Your task to perform on an android device: Search for "bose soundsport free" on target.com, select the first entry, add it to the cart, then select checkout. Image 0: 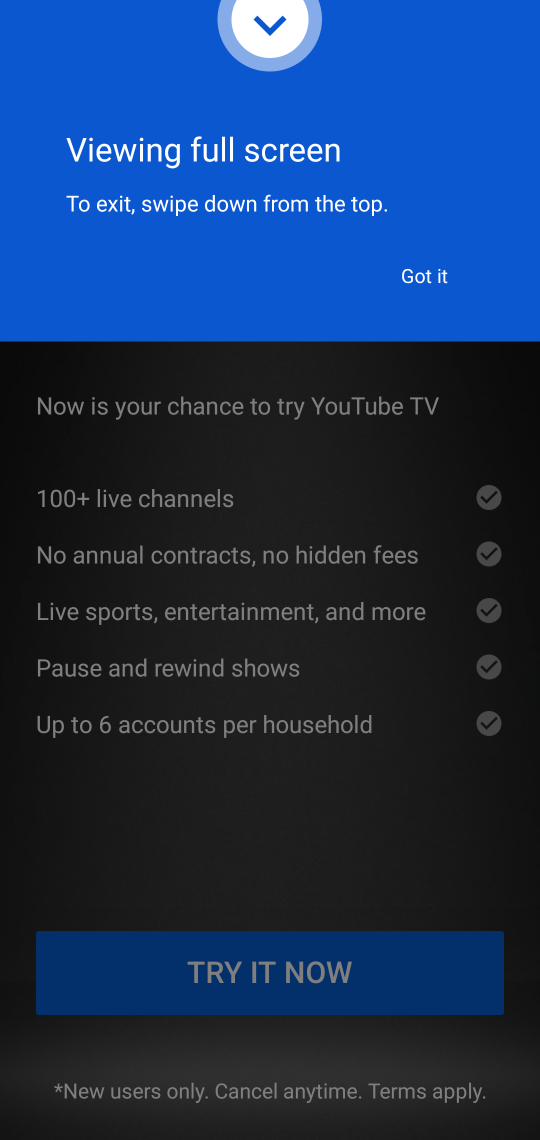
Step 0: press home button
Your task to perform on an android device: Search for "bose soundsport free" on target.com, select the first entry, add it to the cart, then select checkout. Image 1: 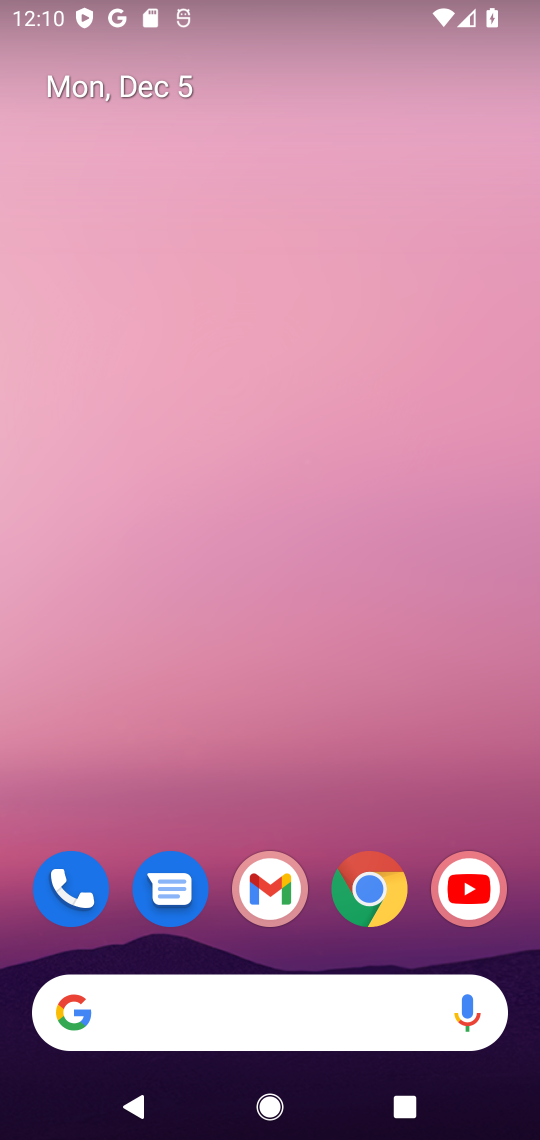
Step 1: click (364, 906)
Your task to perform on an android device: Search for "bose soundsport free" on target.com, select the first entry, add it to the cart, then select checkout. Image 2: 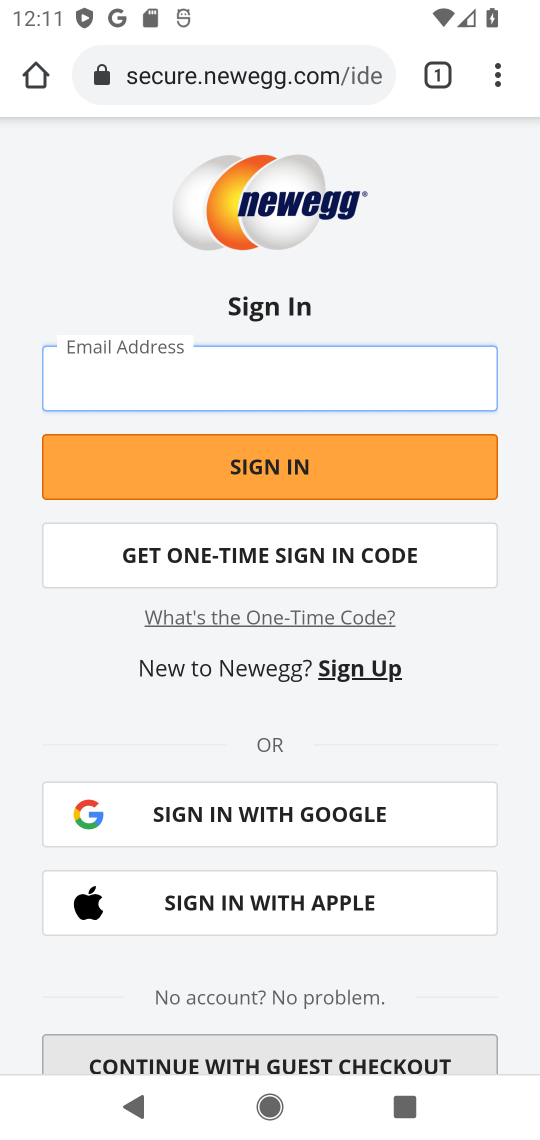
Step 2: click (269, 60)
Your task to perform on an android device: Search for "bose soundsport free" on target.com, select the first entry, add it to the cart, then select checkout. Image 3: 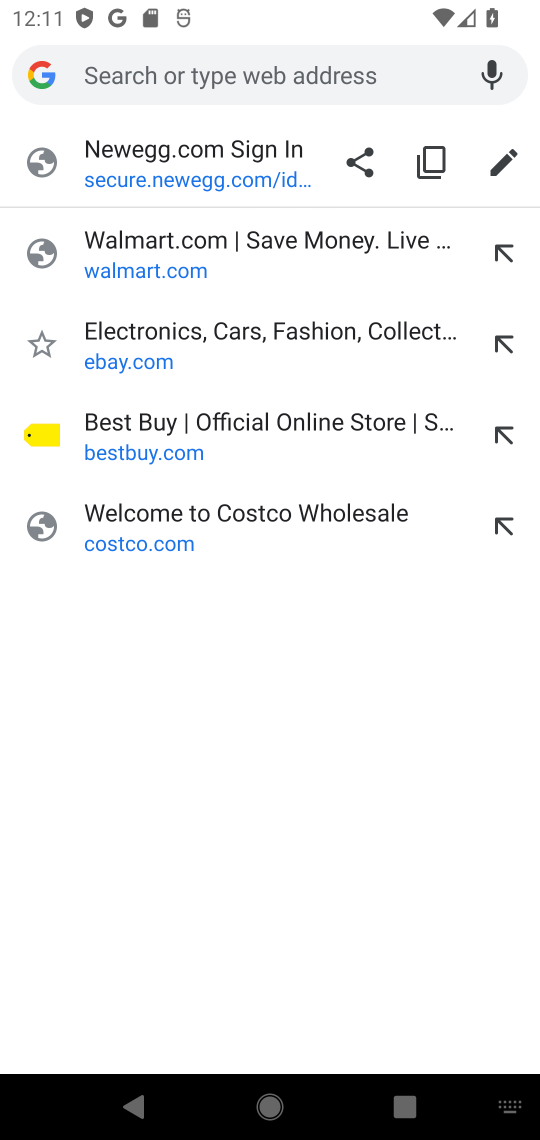
Step 3: type "target.com"
Your task to perform on an android device: Search for "bose soundsport free" on target.com, select the first entry, add it to the cart, then select checkout. Image 4: 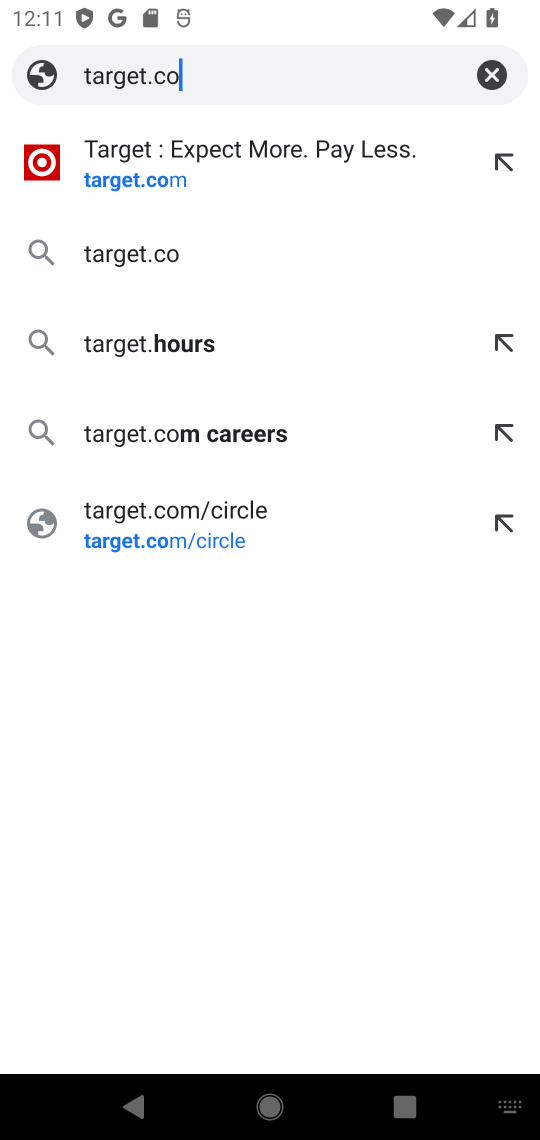
Step 4: press enter
Your task to perform on an android device: Search for "bose soundsport free" on target.com, select the first entry, add it to the cart, then select checkout. Image 5: 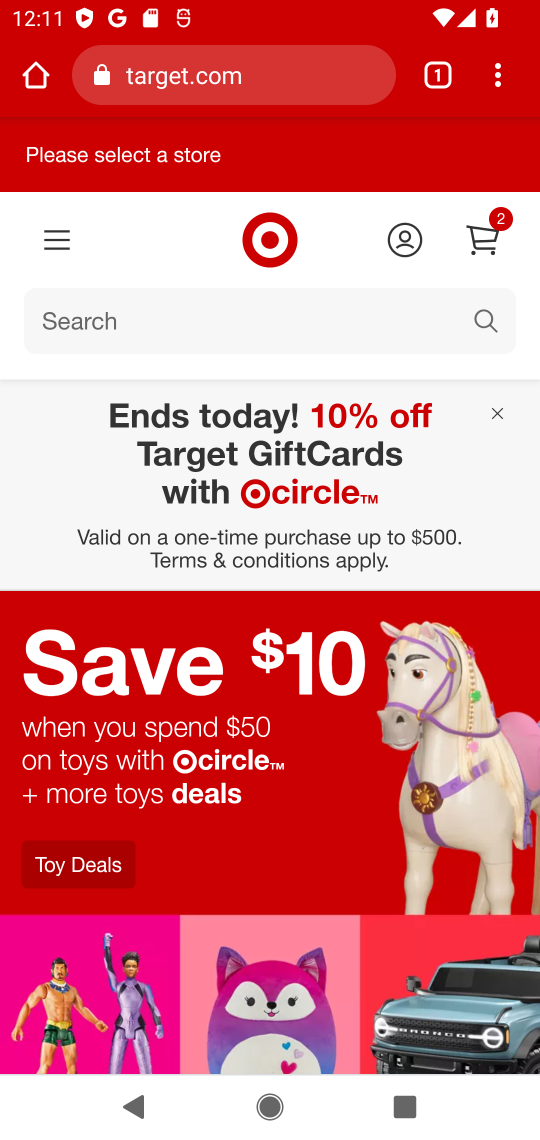
Step 5: click (472, 319)
Your task to perform on an android device: Search for "bose soundsport free" on target.com, select the first entry, add it to the cart, then select checkout. Image 6: 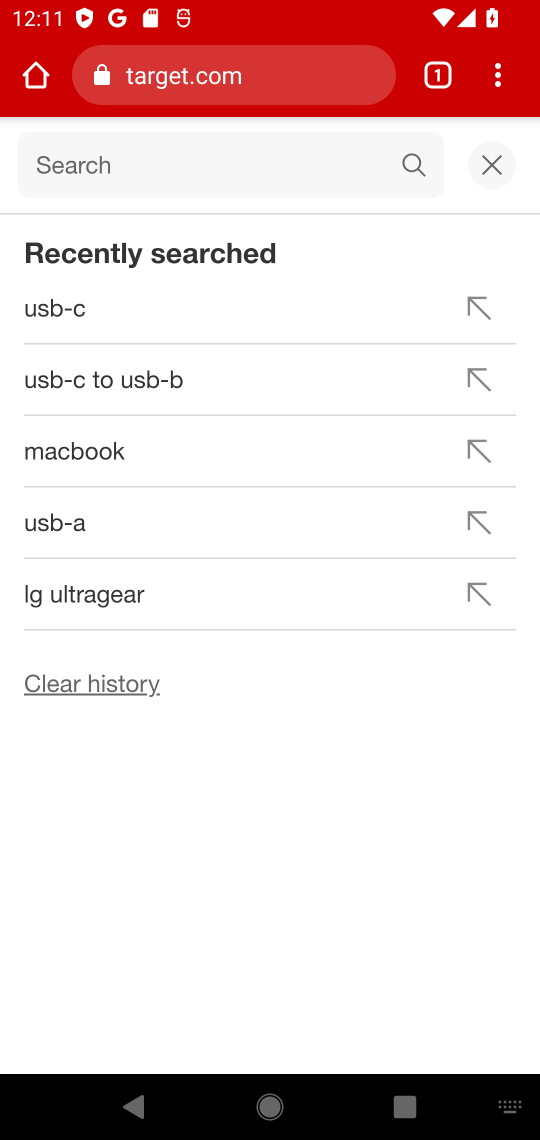
Step 6: type "bose soundsport free"
Your task to perform on an android device: Search for "bose soundsport free" on target.com, select the first entry, add it to the cart, then select checkout. Image 7: 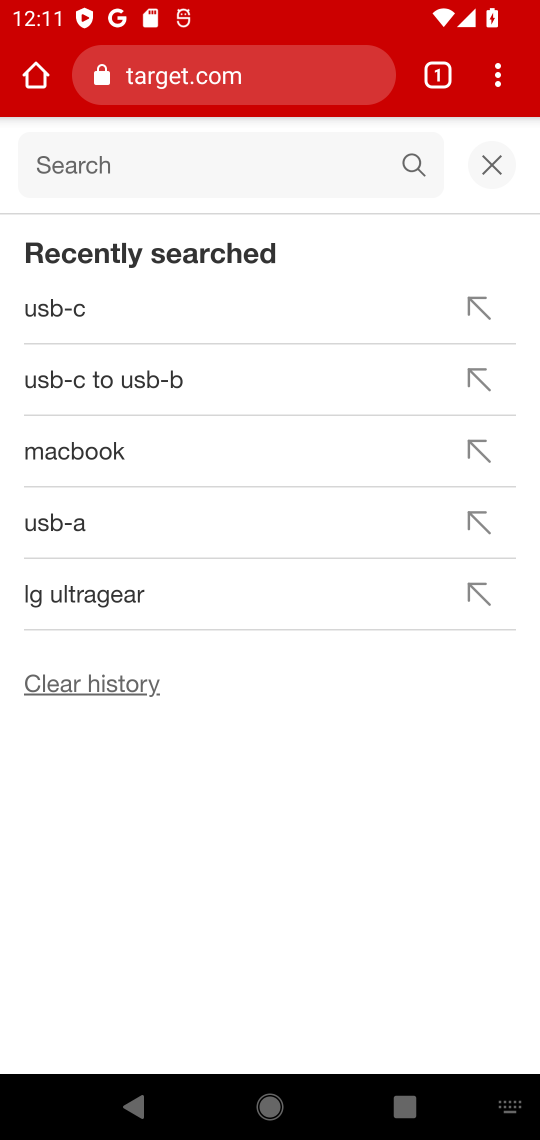
Step 7: press enter
Your task to perform on an android device: Search for "bose soundsport free" on target.com, select the first entry, add it to the cart, then select checkout. Image 8: 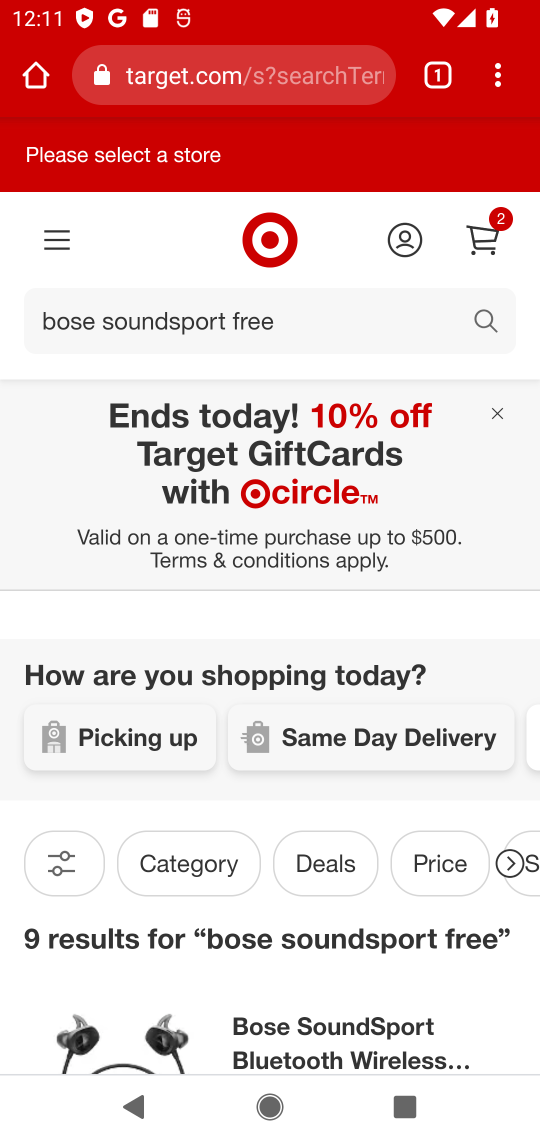
Step 8: task complete